Your task to perform on an android device: turn vacation reply on in the gmail app Image 0: 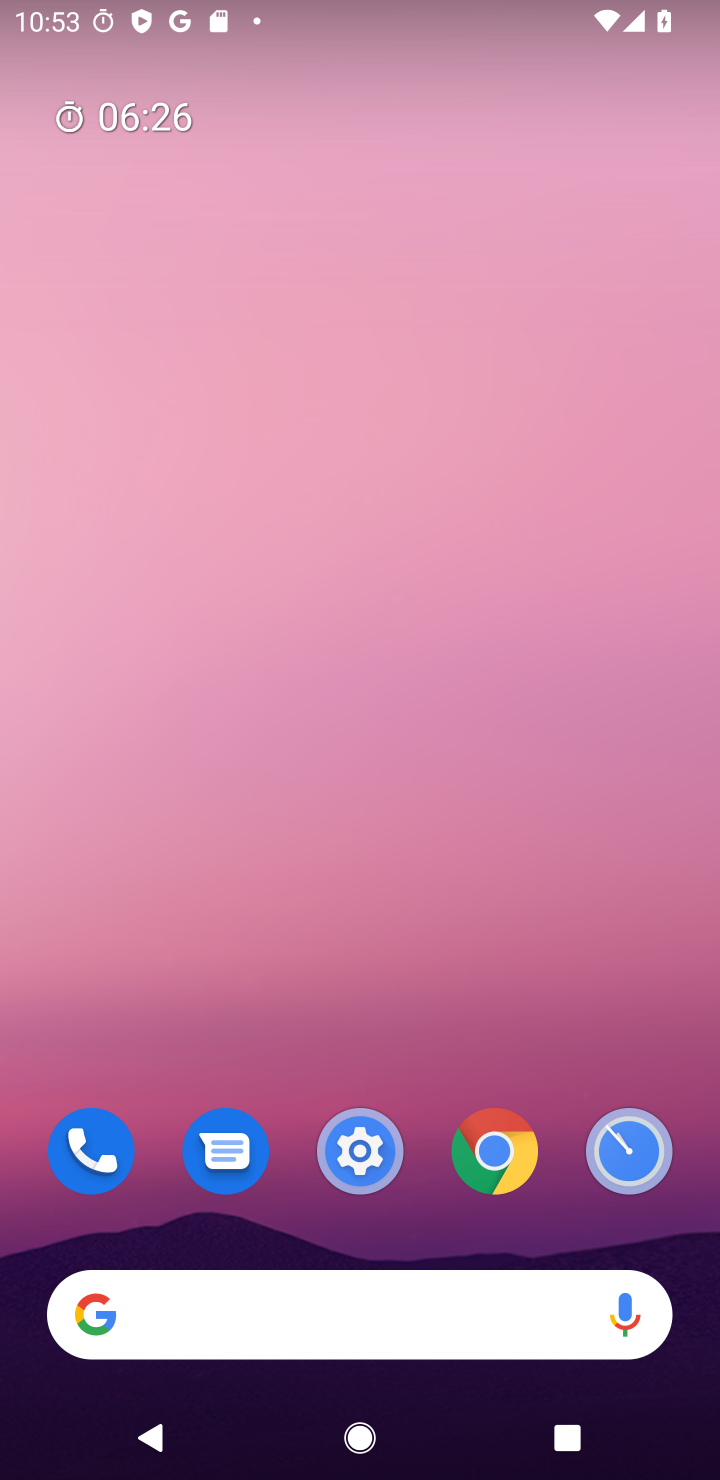
Step 0: drag from (449, 1108) to (360, 493)
Your task to perform on an android device: turn vacation reply on in the gmail app Image 1: 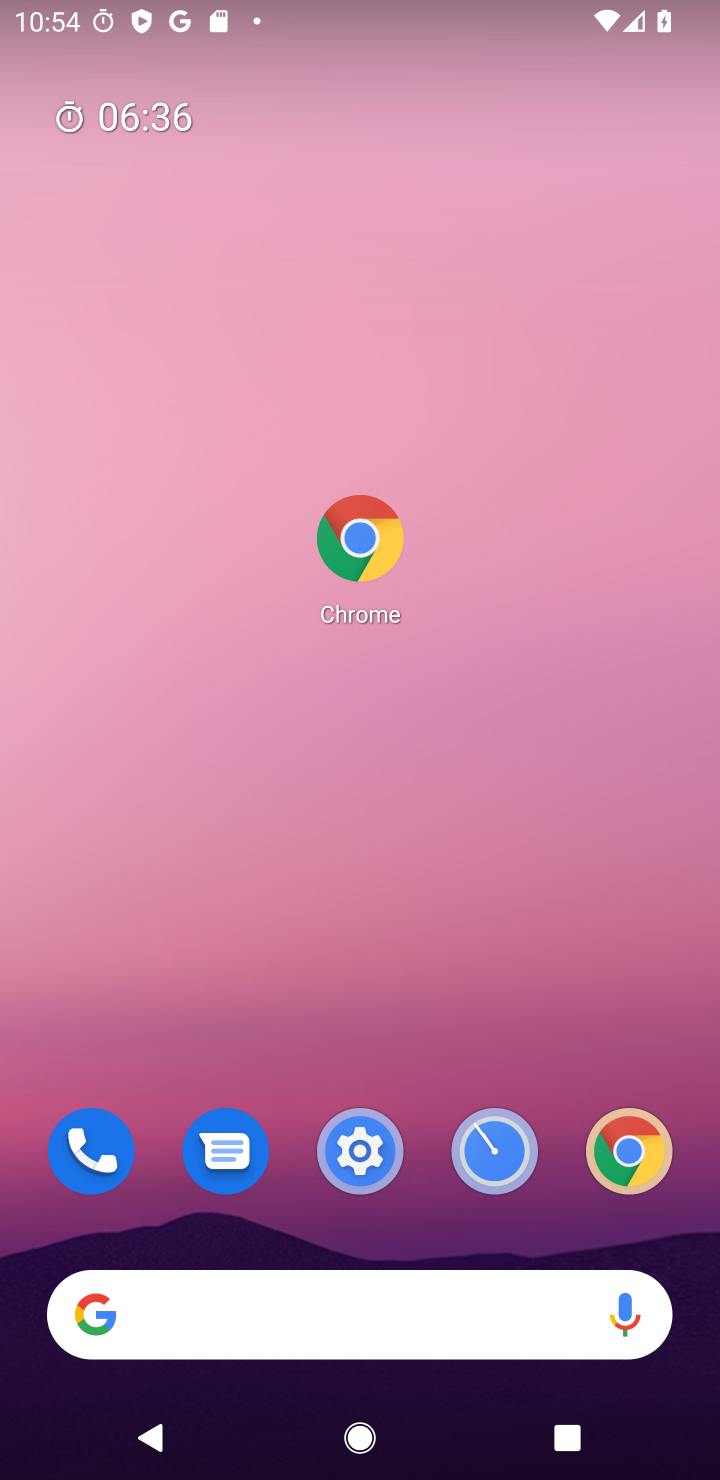
Step 1: drag from (484, 929) to (340, 211)
Your task to perform on an android device: turn vacation reply on in the gmail app Image 2: 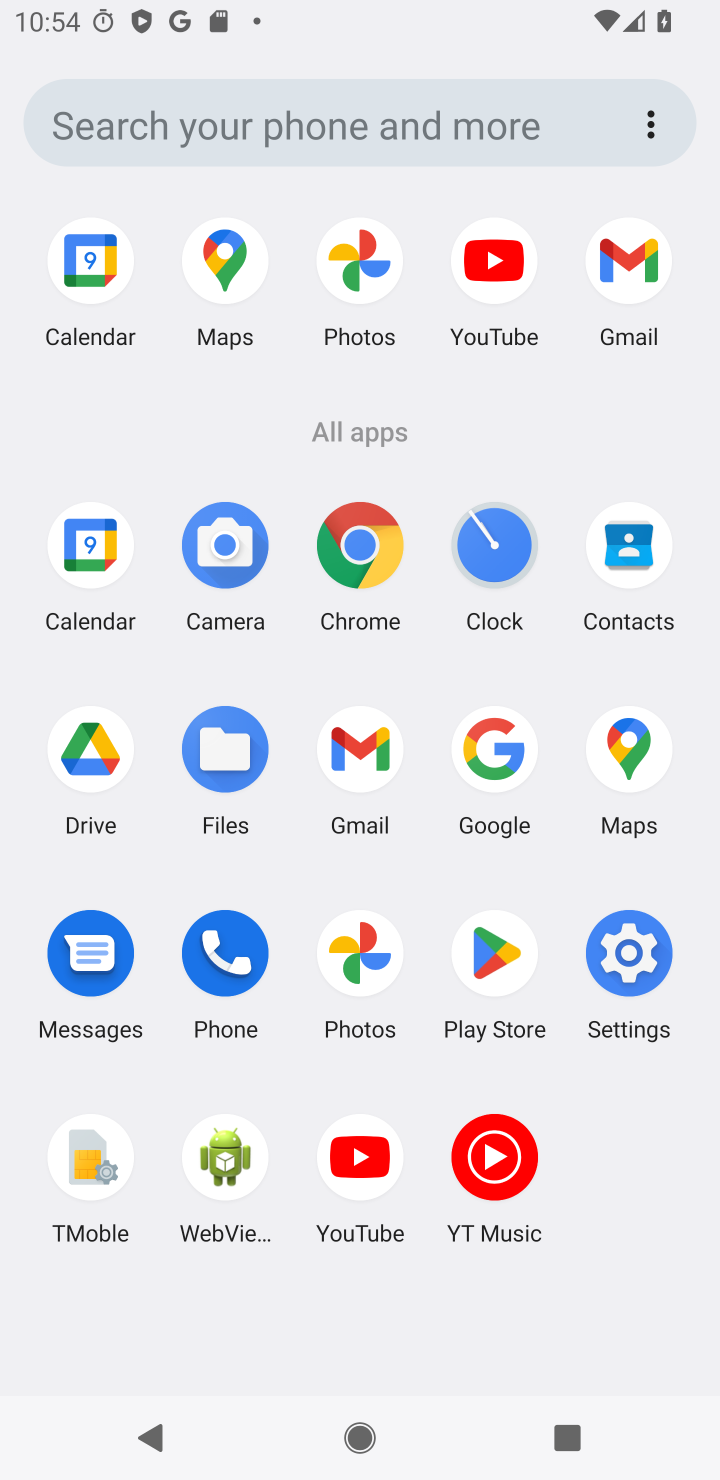
Step 2: click (351, 739)
Your task to perform on an android device: turn vacation reply on in the gmail app Image 3: 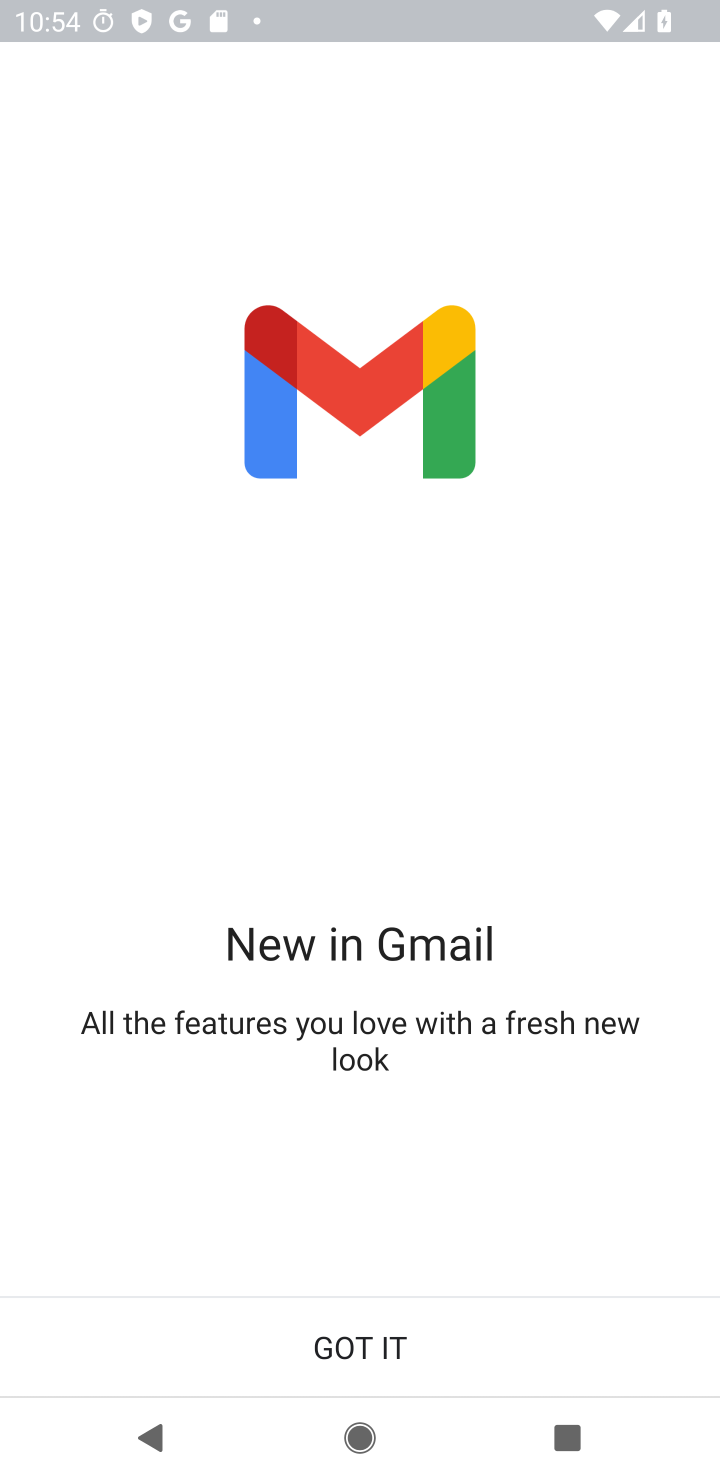
Step 3: click (352, 1350)
Your task to perform on an android device: turn vacation reply on in the gmail app Image 4: 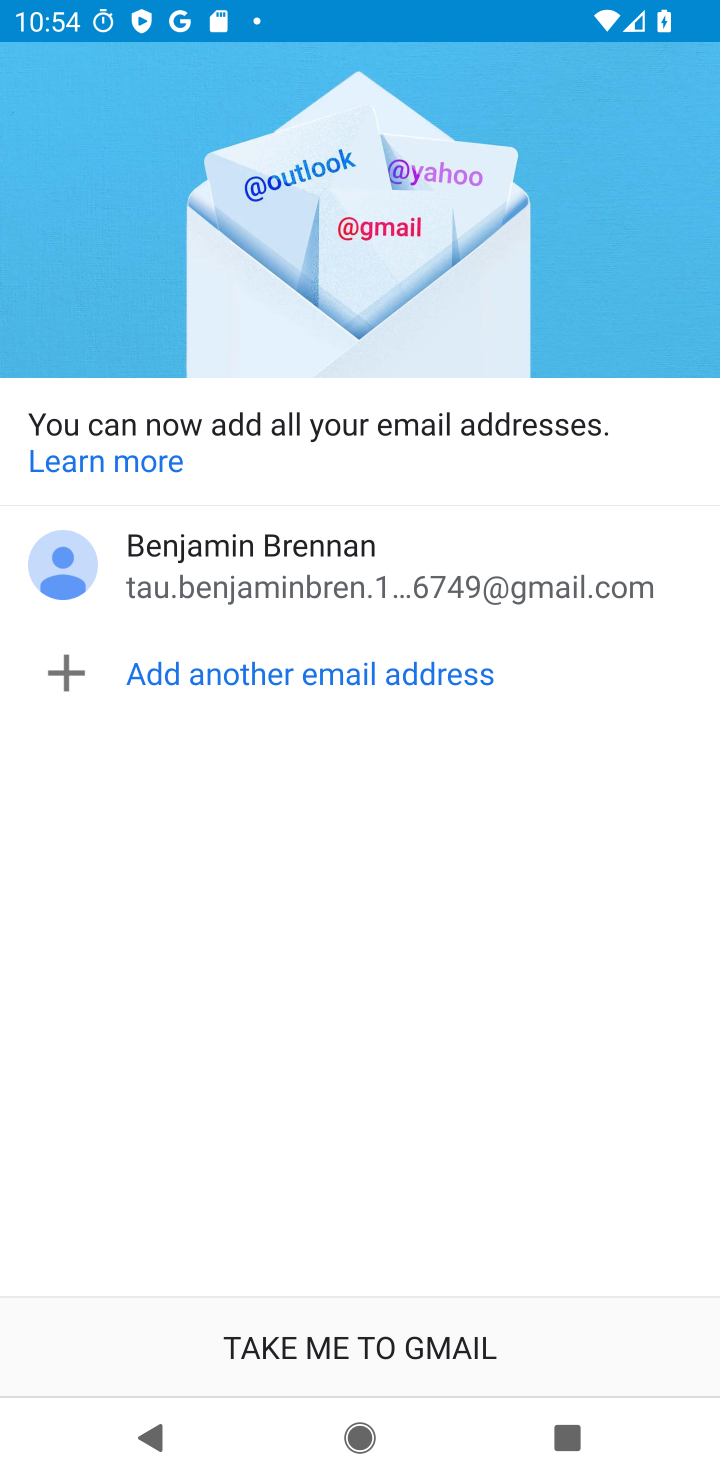
Step 4: click (338, 1325)
Your task to perform on an android device: turn vacation reply on in the gmail app Image 5: 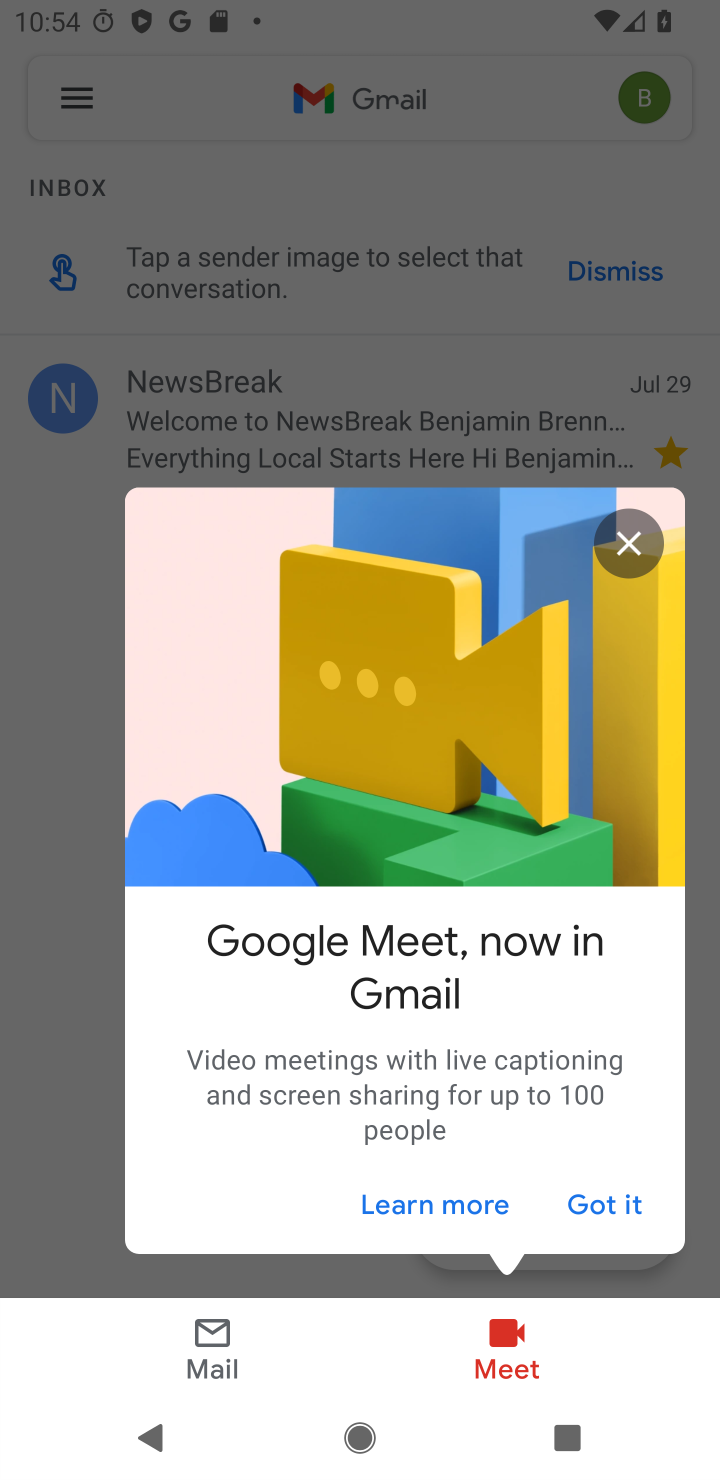
Step 5: click (620, 1195)
Your task to perform on an android device: turn vacation reply on in the gmail app Image 6: 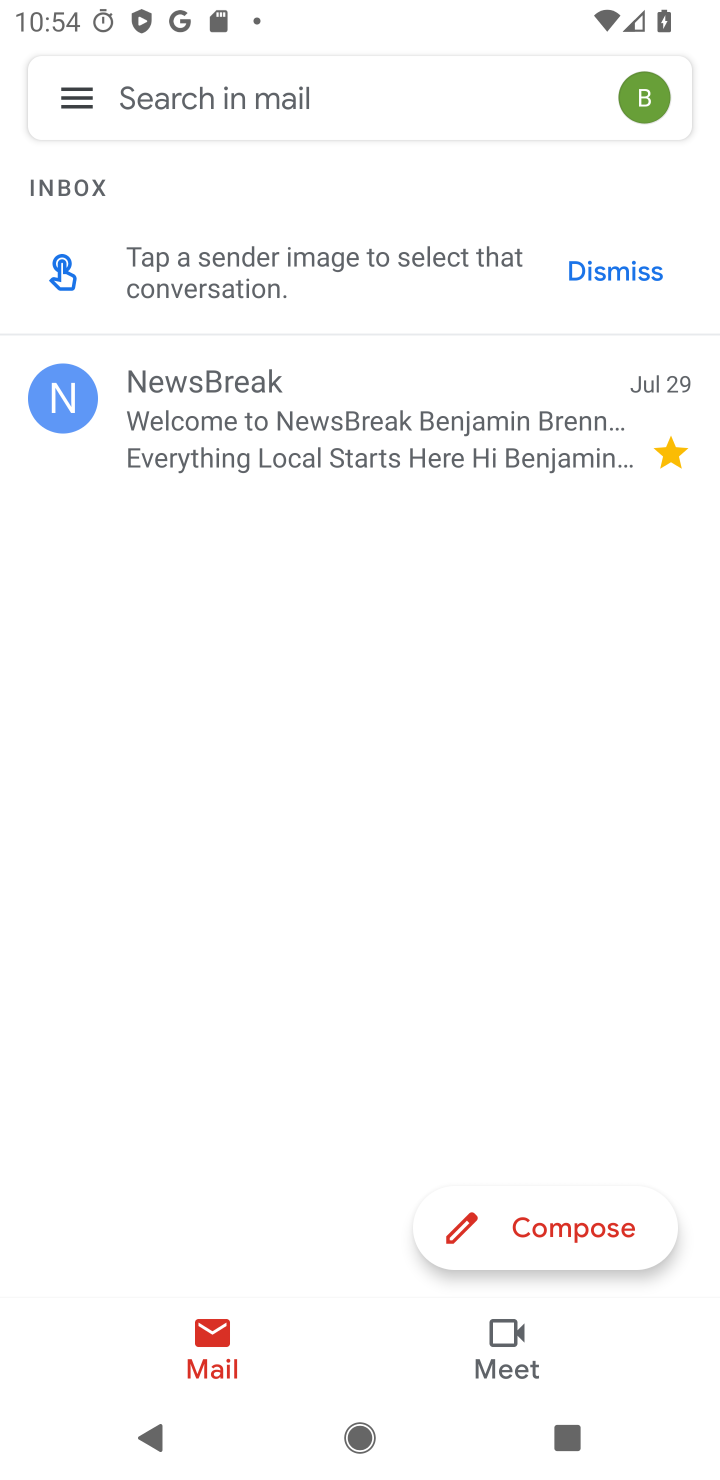
Step 6: click (58, 108)
Your task to perform on an android device: turn vacation reply on in the gmail app Image 7: 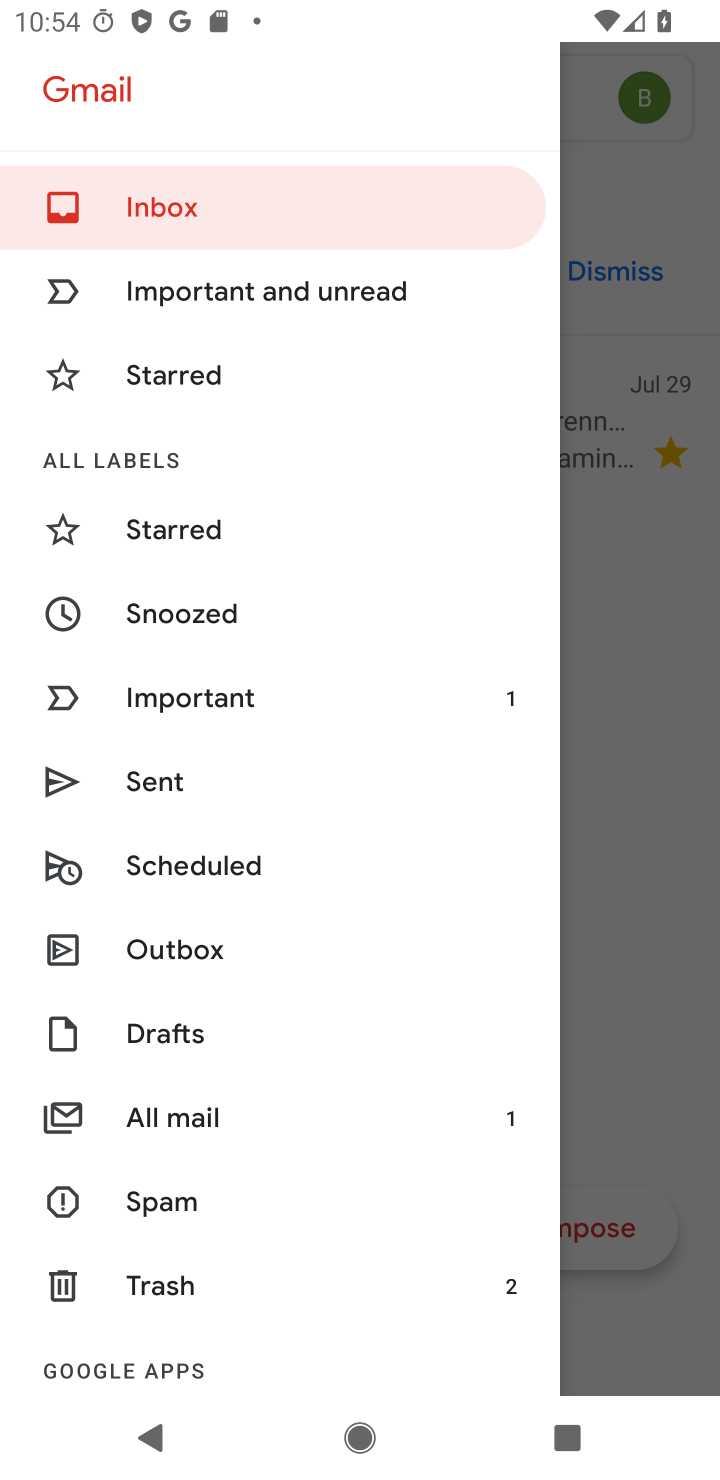
Step 7: drag from (381, 1045) to (318, 651)
Your task to perform on an android device: turn vacation reply on in the gmail app Image 8: 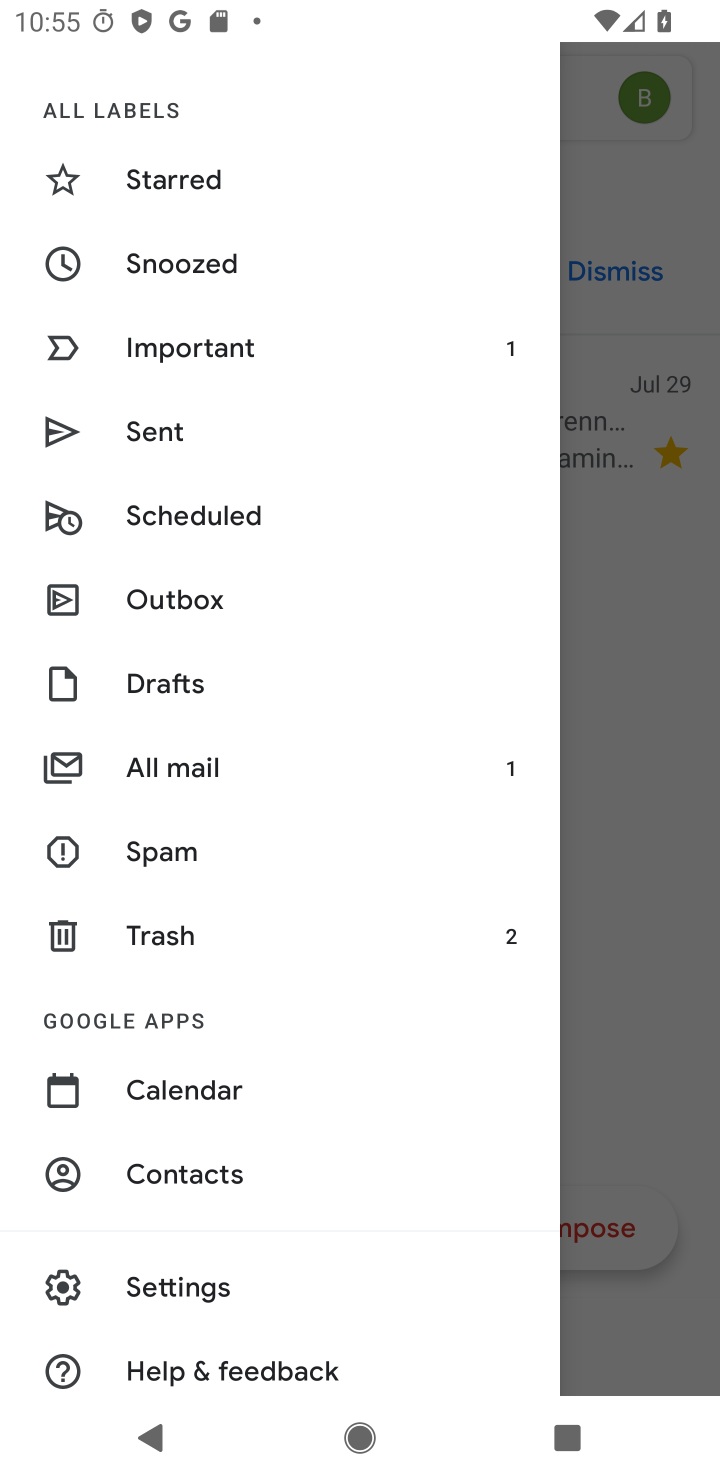
Step 8: click (163, 1280)
Your task to perform on an android device: turn vacation reply on in the gmail app Image 9: 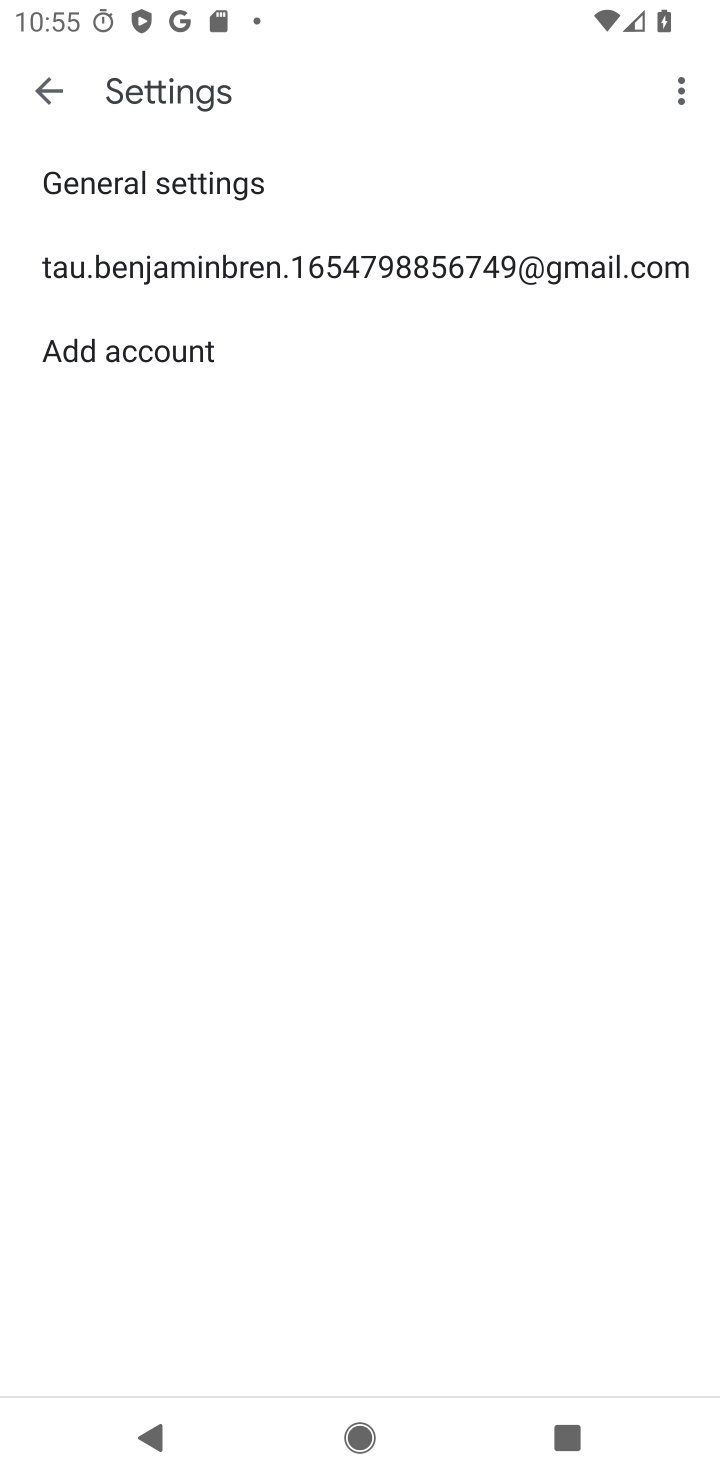
Step 9: click (145, 260)
Your task to perform on an android device: turn vacation reply on in the gmail app Image 10: 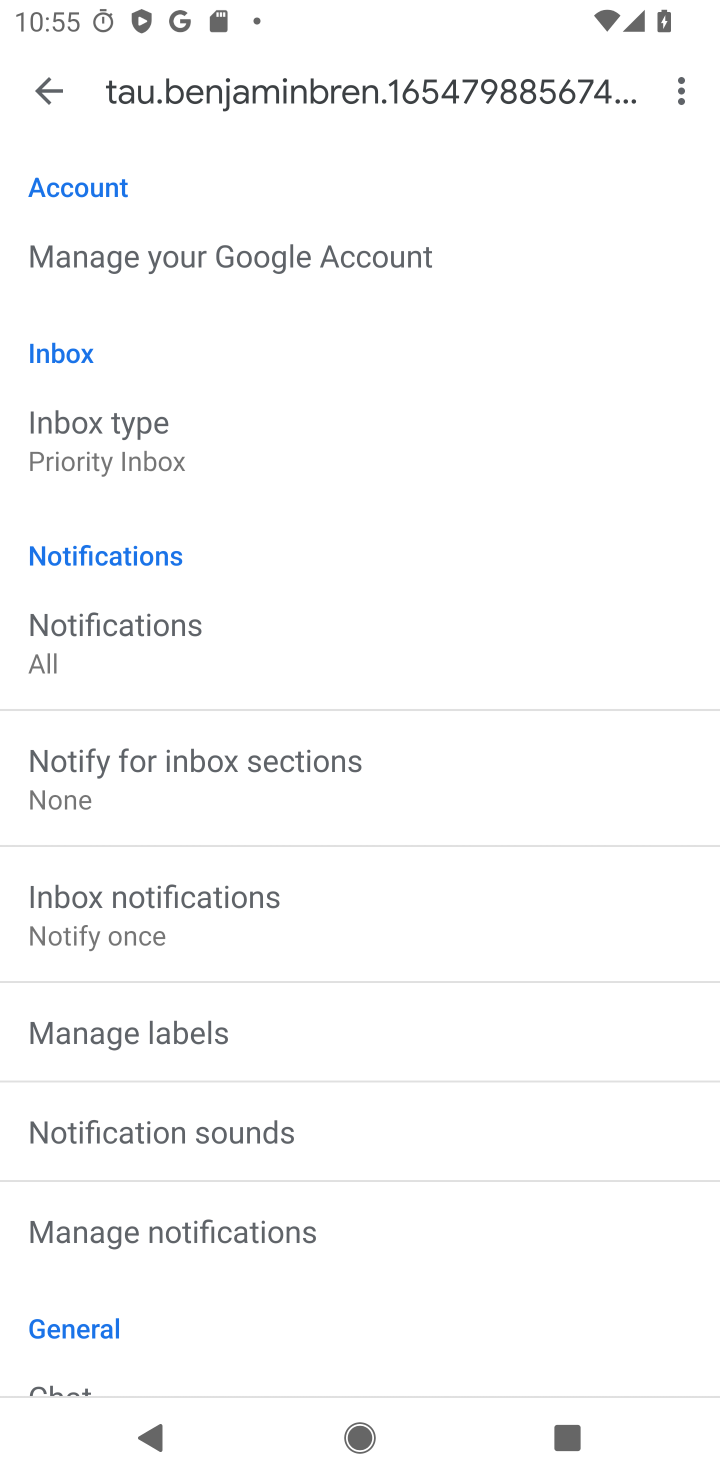
Step 10: drag from (517, 1183) to (46, 16)
Your task to perform on an android device: turn vacation reply on in the gmail app Image 11: 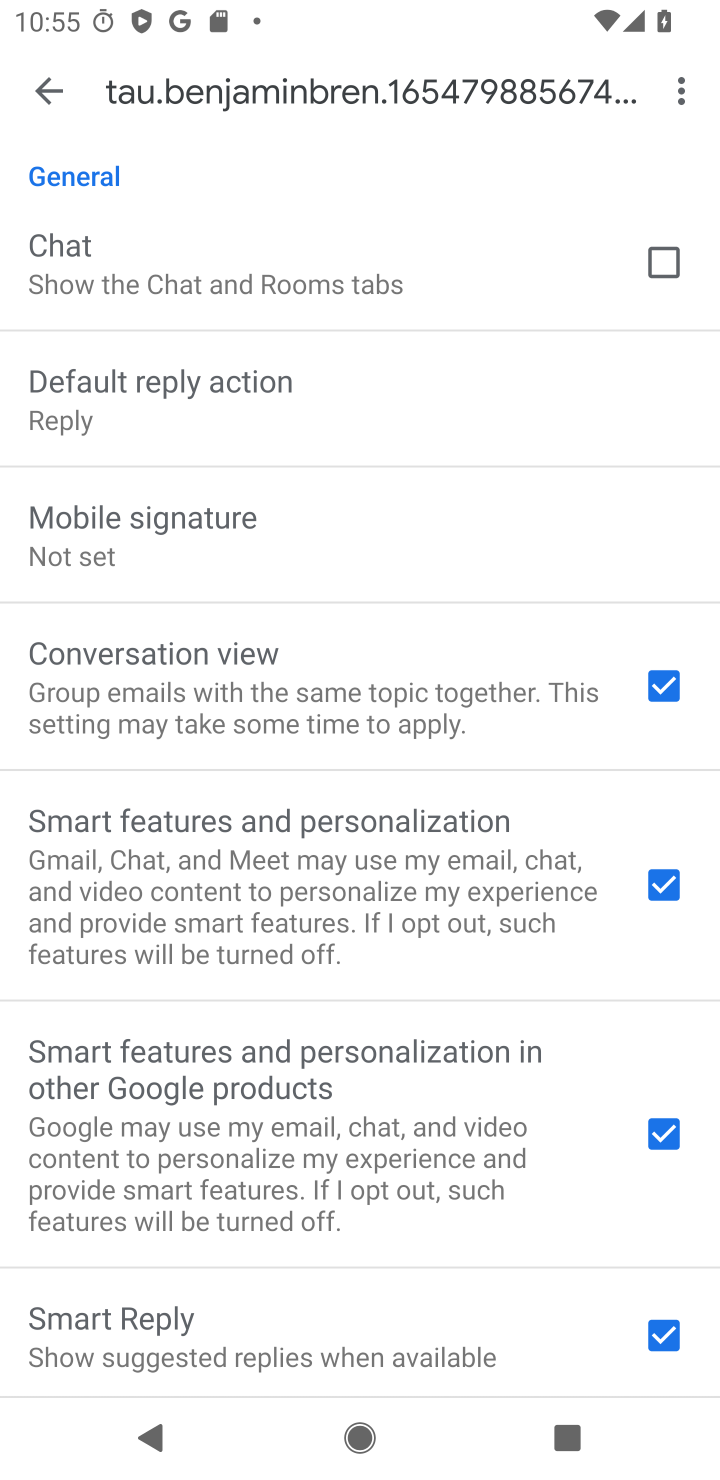
Step 11: drag from (452, 1179) to (292, 619)
Your task to perform on an android device: turn vacation reply on in the gmail app Image 12: 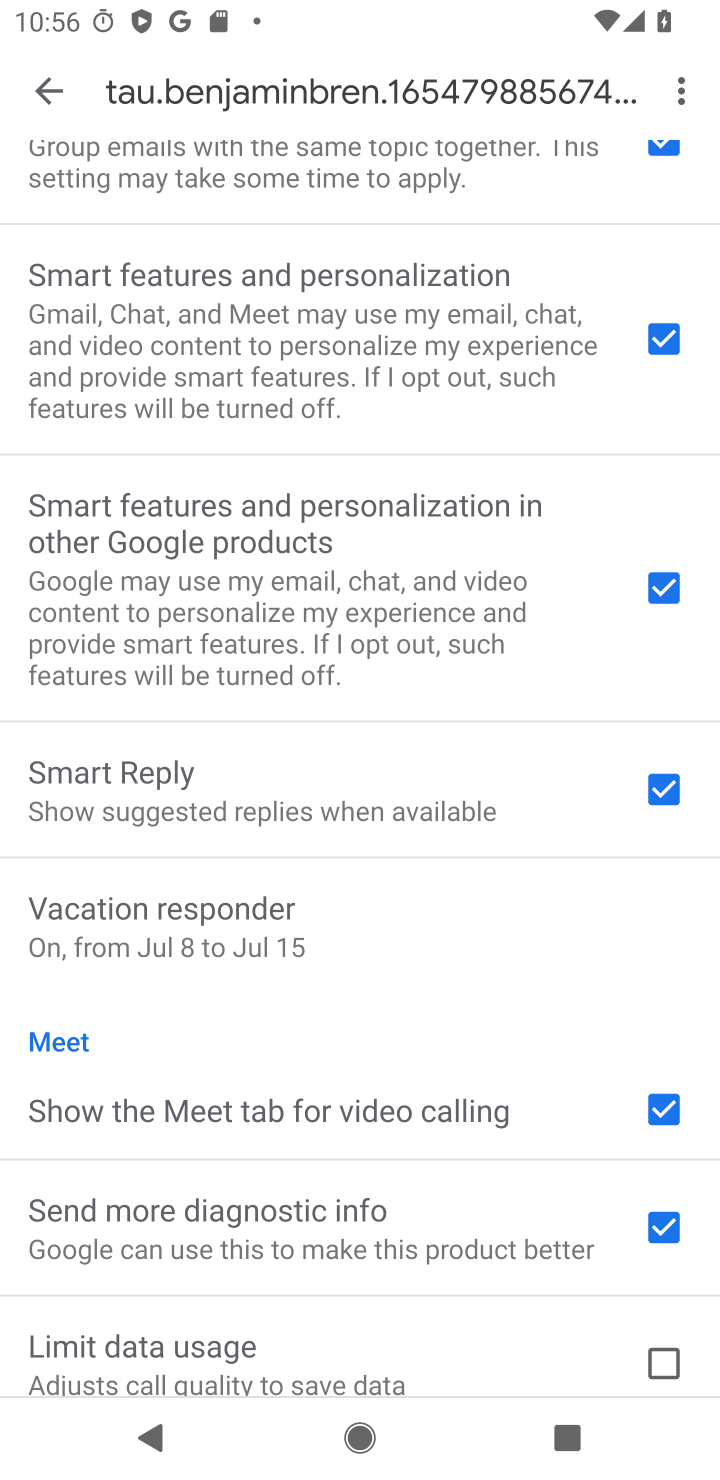
Step 12: click (353, 920)
Your task to perform on an android device: turn vacation reply on in the gmail app Image 13: 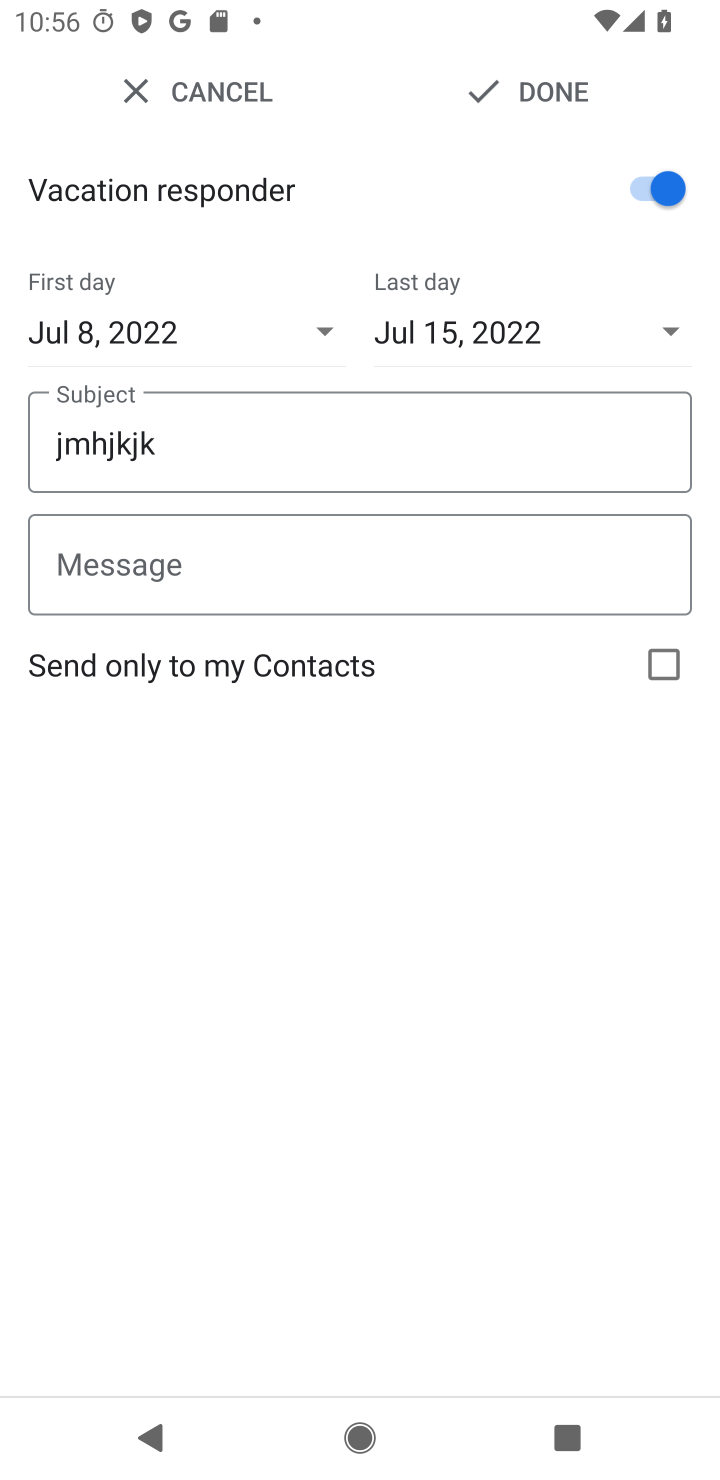
Step 13: task complete